Your task to perform on an android device: Go to Yahoo.com Image 0: 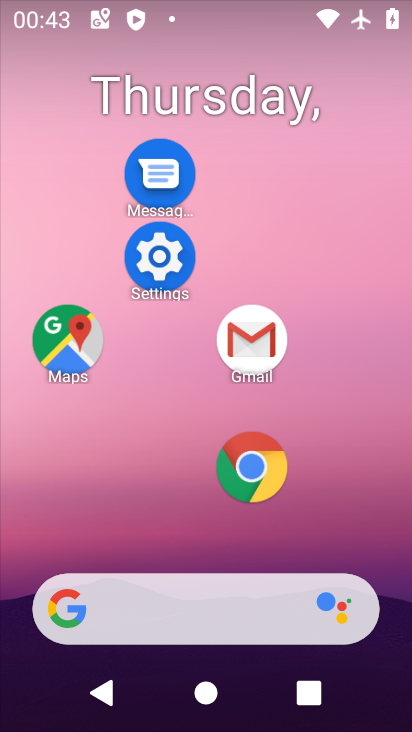
Step 0: drag from (151, 558) to (184, 307)
Your task to perform on an android device: Go to Yahoo.com Image 1: 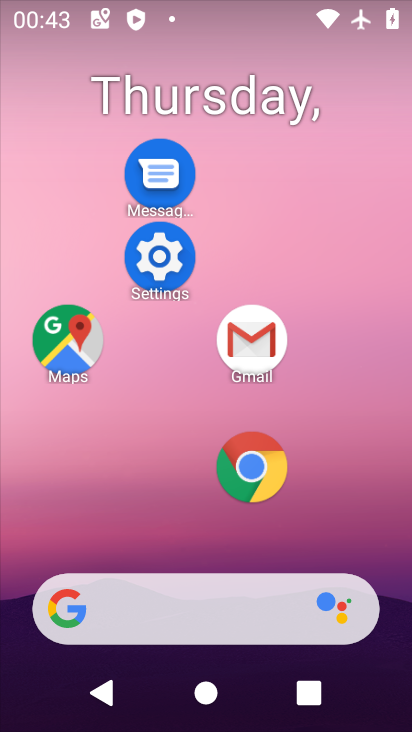
Step 1: drag from (207, 529) to (216, 74)
Your task to perform on an android device: Go to Yahoo.com Image 2: 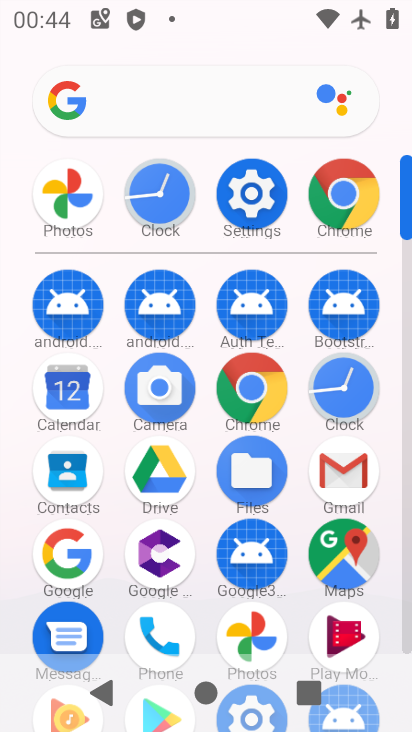
Step 2: click (219, 93)
Your task to perform on an android device: Go to Yahoo.com Image 3: 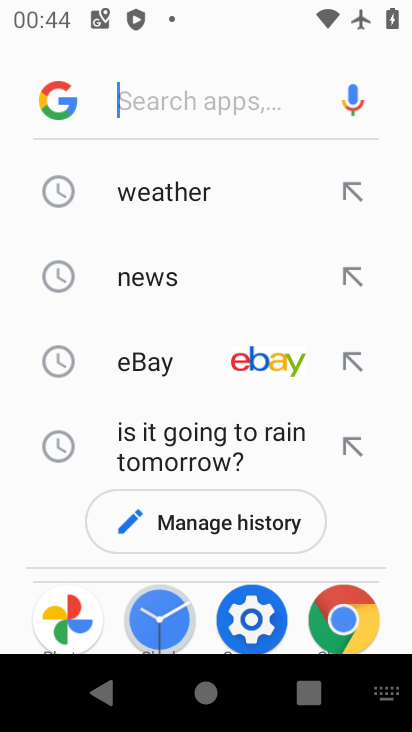
Step 3: click (172, 85)
Your task to perform on an android device: Go to Yahoo.com Image 4: 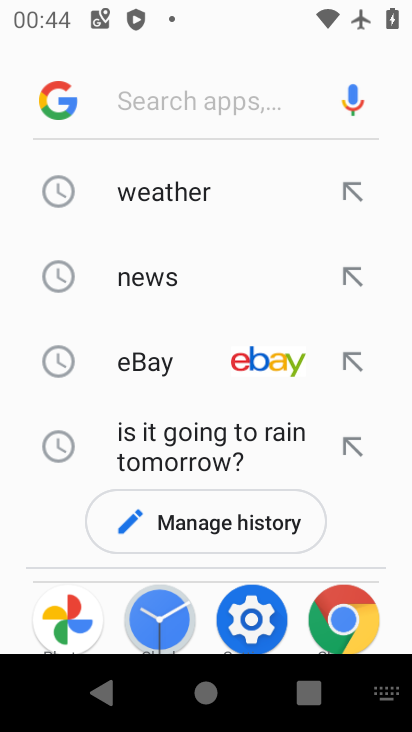
Step 4: type "yahoo"
Your task to perform on an android device: Go to Yahoo.com Image 5: 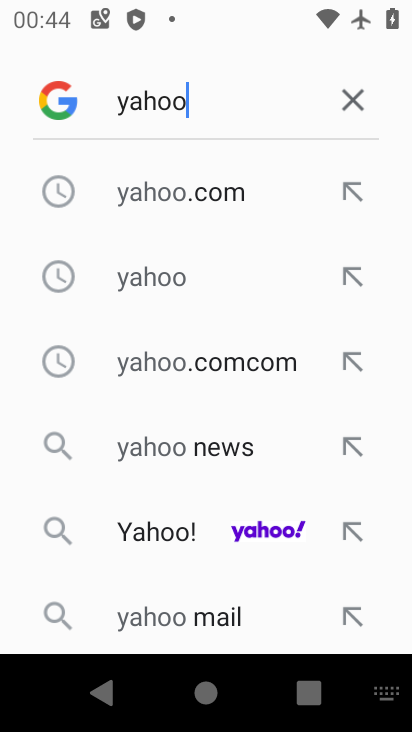
Step 5: click (199, 203)
Your task to perform on an android device: Go to Yahoo.com Image 6: 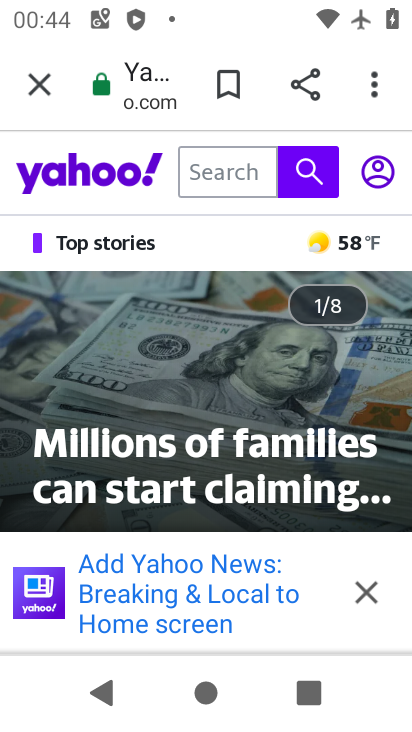
Step 6: task complete